Your task to perform on an android device: clear history in the chrome app Image 0: 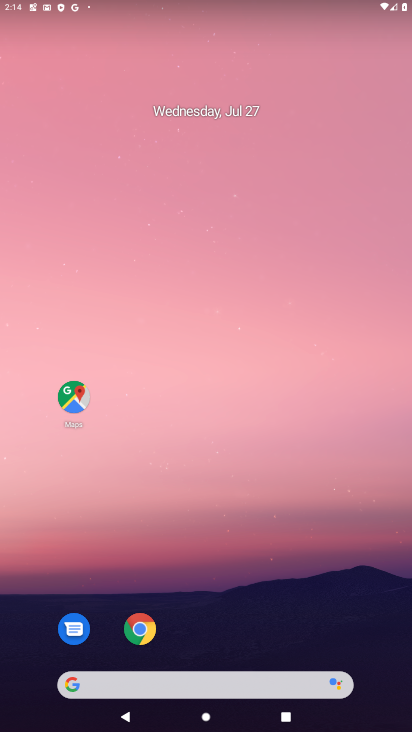
Step 0: click (133, 624)
Your task to perform on an android device: clear history in the chrome app Image 1: 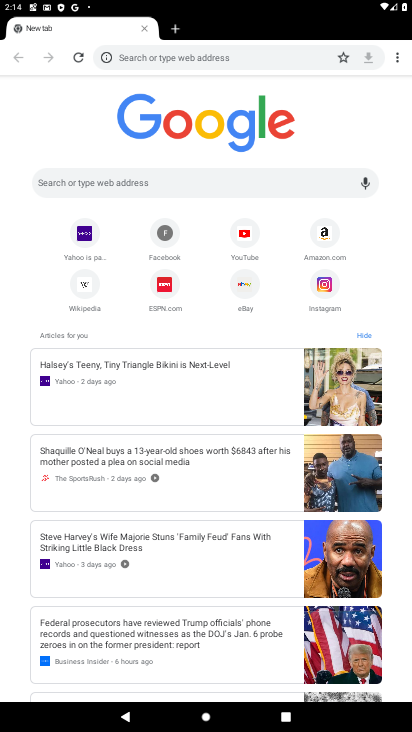
Step 1: task complete